Your task to perform on an android device: Do I have any events tomorrow? Image 0: 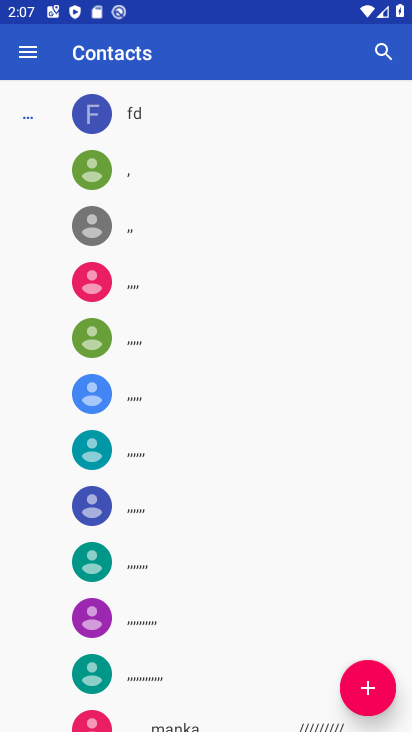
Step 0: press home button
Your task to perform on an android device: Do I have any events tomorrow? Image 1: 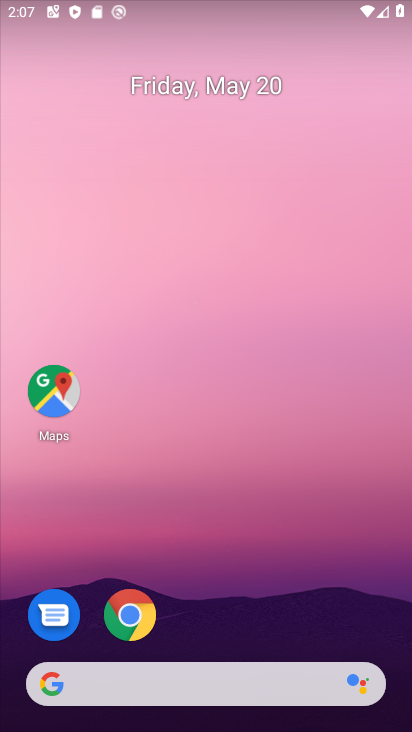
Step 1: drag from (273, 616) to (268, 308)
Your task to perform on an android device: Do I have any events tomorrow? Image 2: 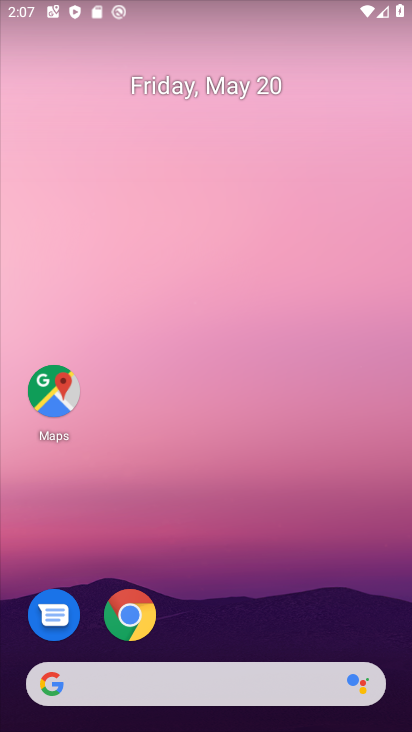
Step 2: drag from (184, 582) to (214, 195)
Your task to perform on an android device: Do I have any events tomorrow? Image 3: 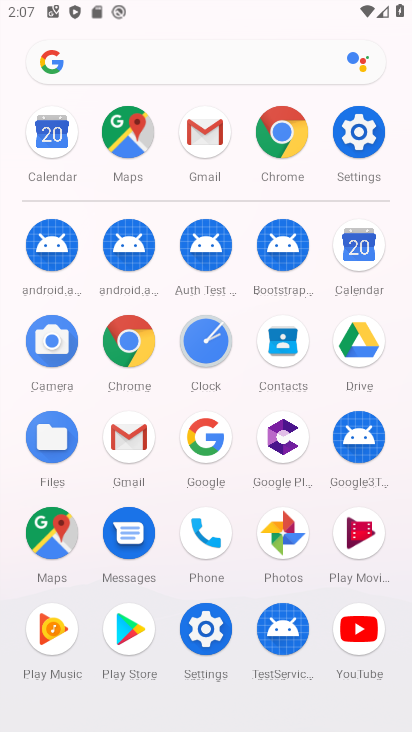
Step 3: click (344, 246)
Your task to perform on an android device: Do I have any events tomorrow? Image 4: 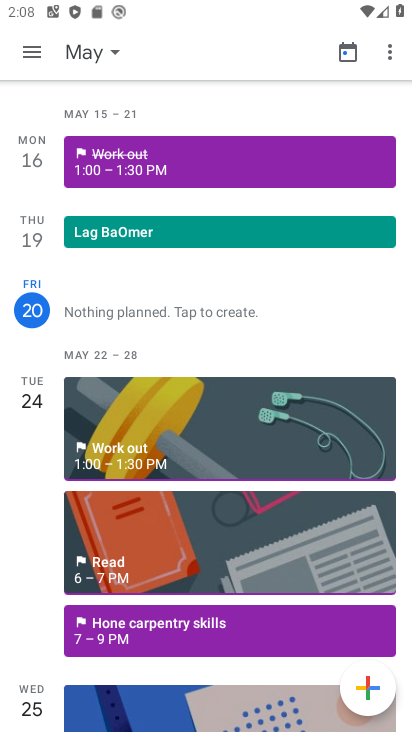
Step 4: task complete